Your task to perform on an android device: Open settings on Google Maps Image 0: 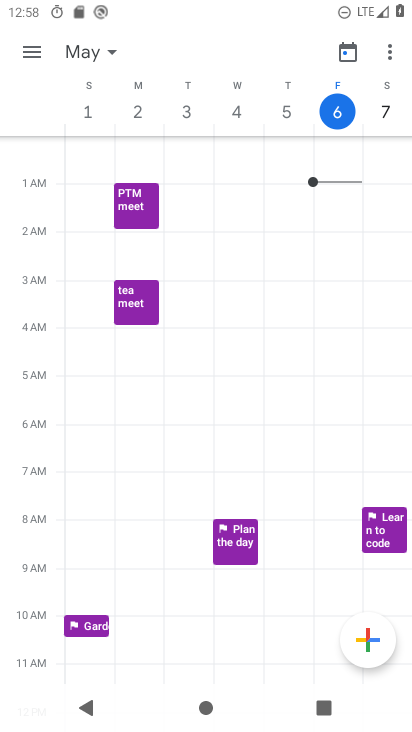
Step 0: press home button
Your task to perform on an android device: Open settings on Google Maps Image 1: 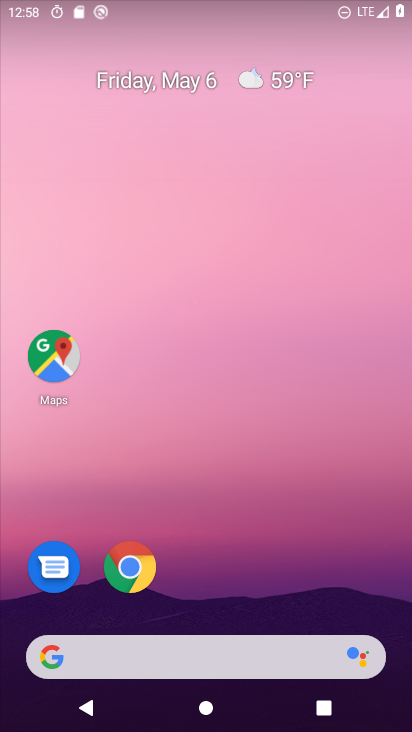
Step 1: click (38, 353)
Your task to perform on an android device: Open settings on Google Maps Image 2: 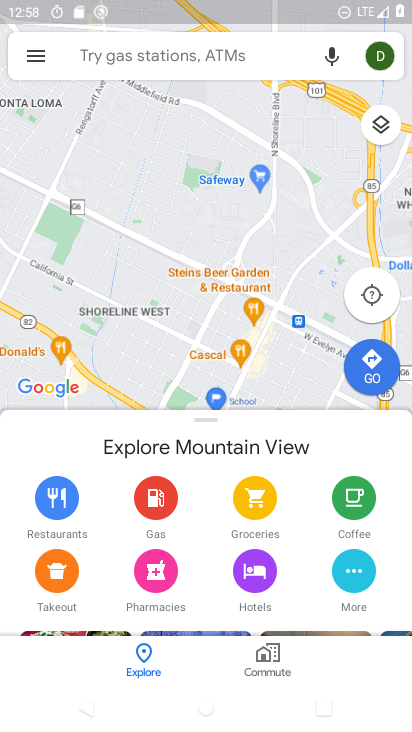
Step 2: click (33, 58)
Your task to perform on an android device: Open settings on Google Maps Image 3: 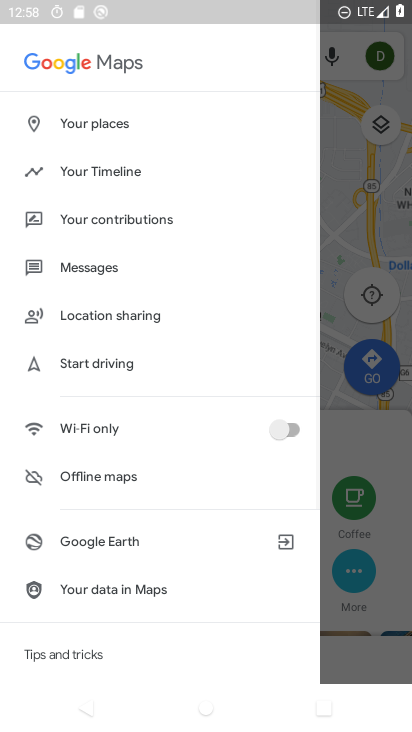
Step 3: drag from (106, 560) to (110, 278)
Your task to perform on an android device: Open settings on Google Maps Image 4: 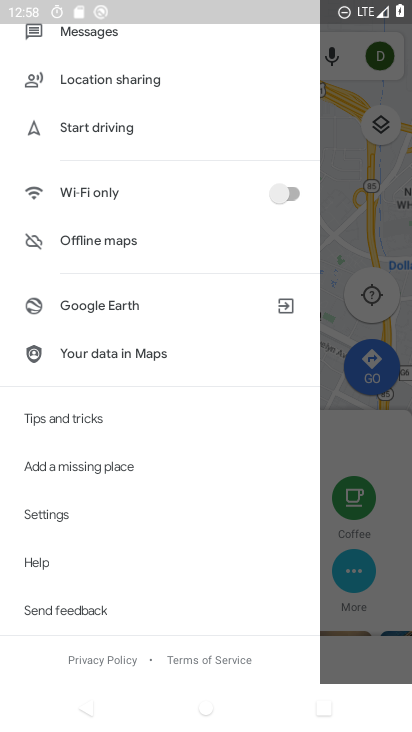
Step 4: click (66, 516)
Your task to perform on an android device: Open settings on Google Maps Image 5: 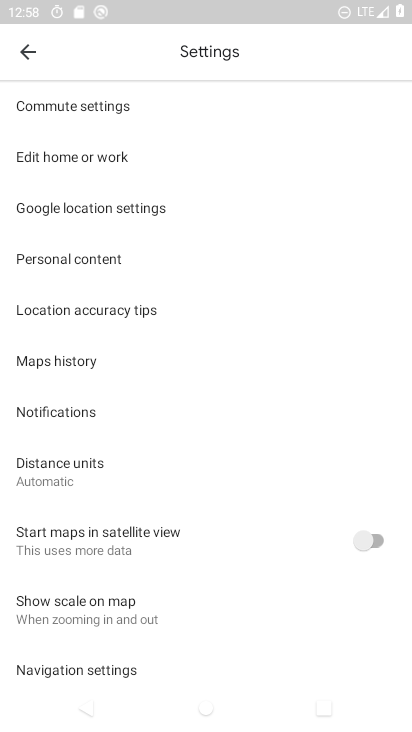
Step 5: task complete